Your task to perform on an android device: Go to Google Image 0: 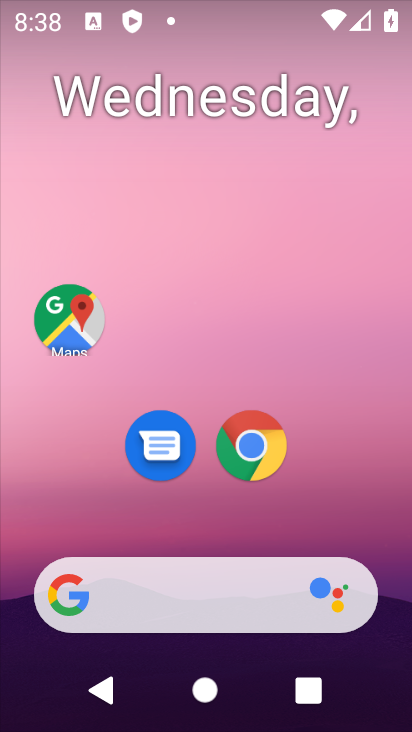
Step 0: drag from (358, 500) to (204, 0)
Your task to perform on an android device: Go to Google Image 1: 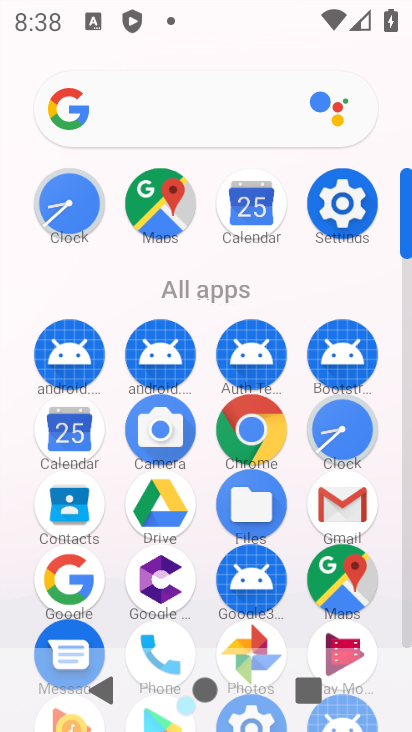
Step 1: click (65, 581)
Your task to perform on an android device: Go to Google Image 2: 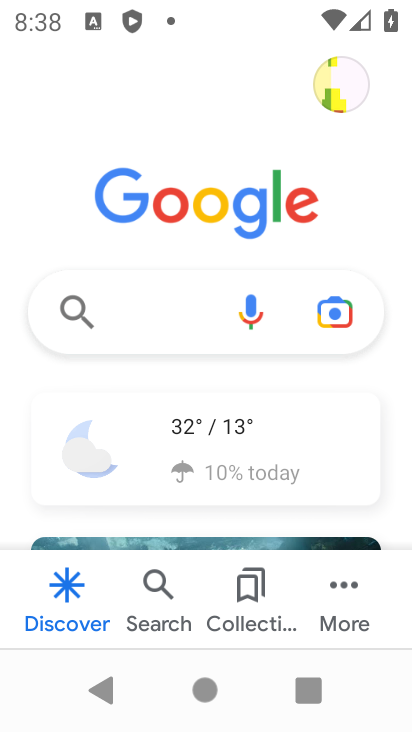
Step 2: task complete